Your task to perform on an android device: Clear the cart on amazon. Image 0: 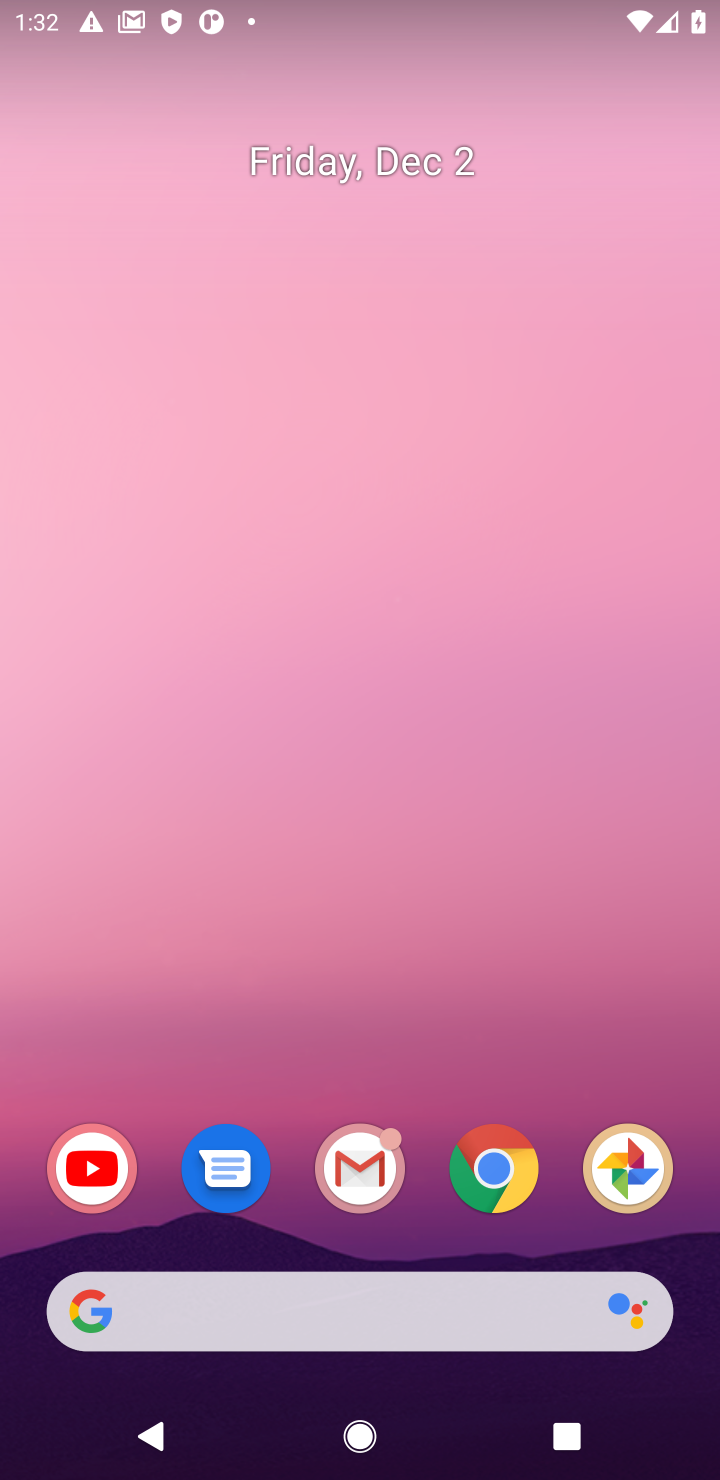
Step 0: click (482, 1172)
Your task to perform on an android device: Clear the cart on amazon. Image 1: 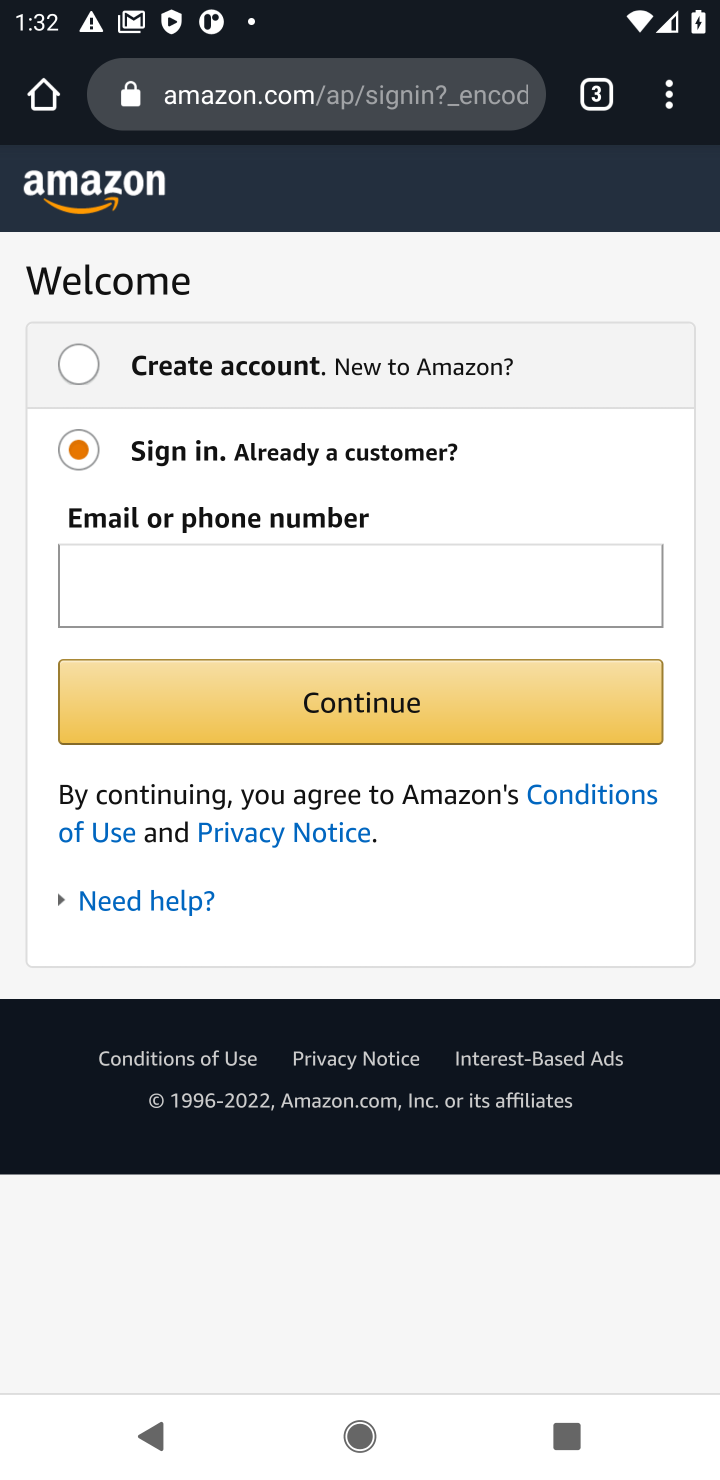
Step 1: press back button
Your task to perform on an android device: Clear the cart on amazon. Image 2: 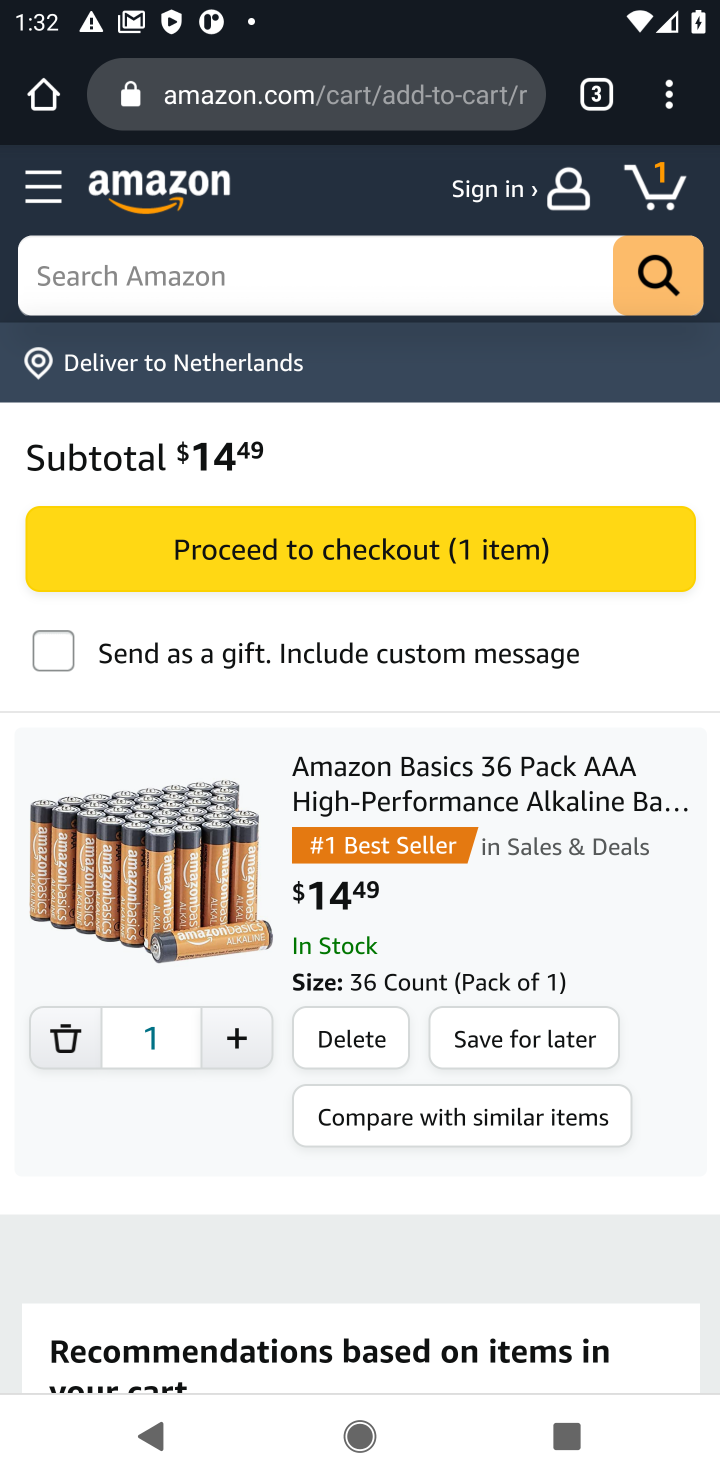
Step 2: click (351, 1036)
Your task to perform on an android device: Clear the cart on amazon. Image 3: 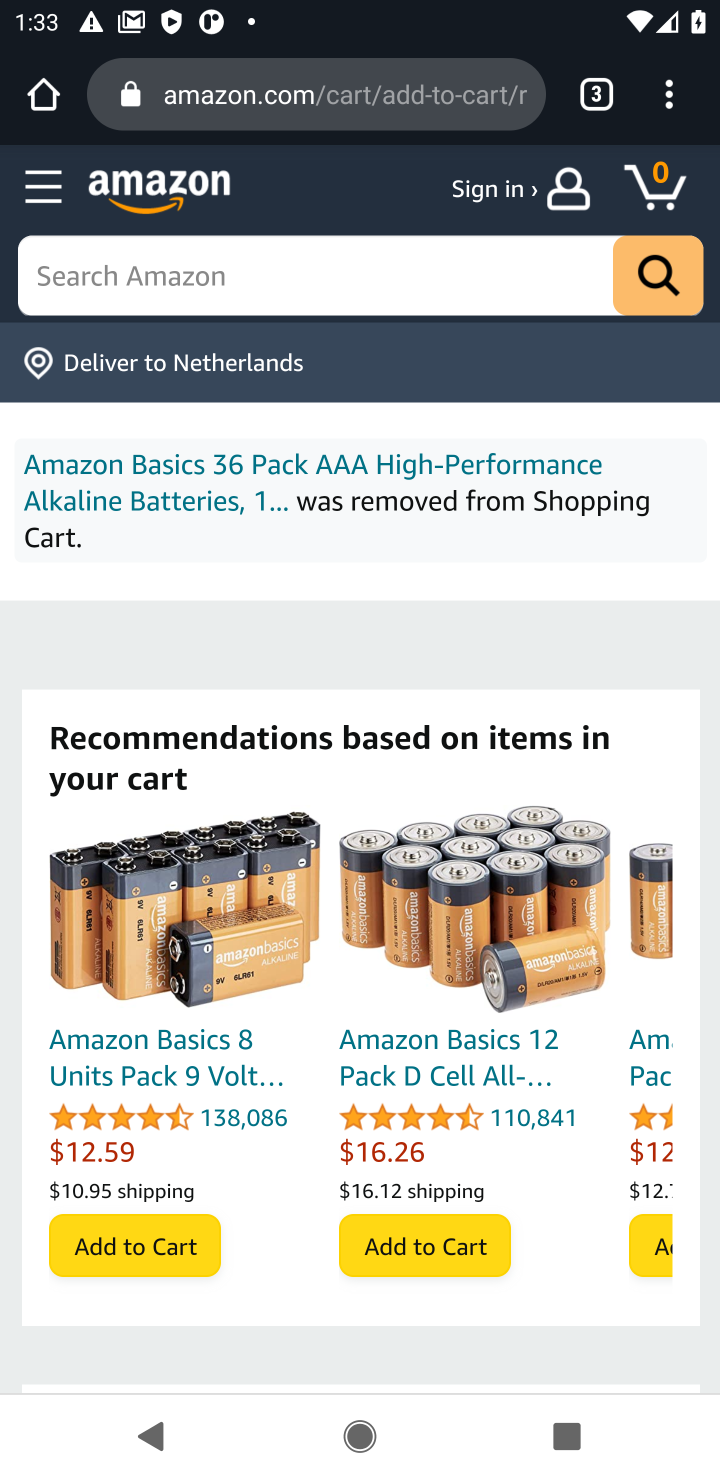
Step 3: task complete